Your task to perform on an android device: Turn off the flashlight Image 0: 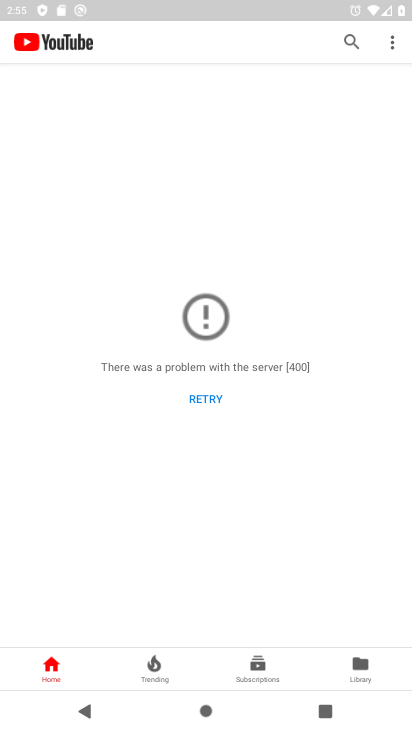
Step 0: press home button
Your task to perform on an android device: Turn off the flashlight Image 1: 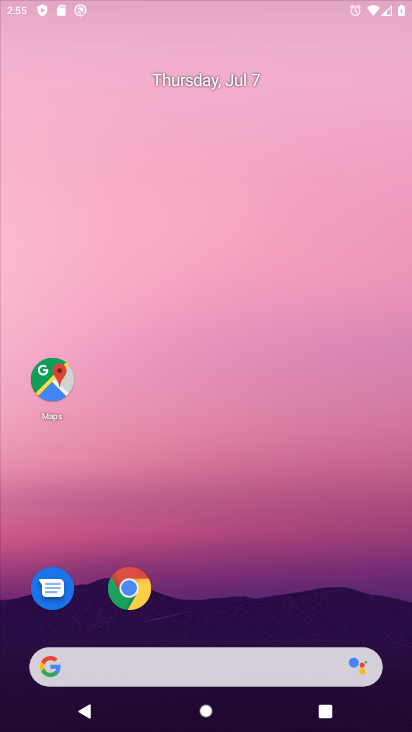
Step 1: drag from (181, 264) to (189, 485)
Your task to perform on an android device: Turn off the flashlight Image 2: 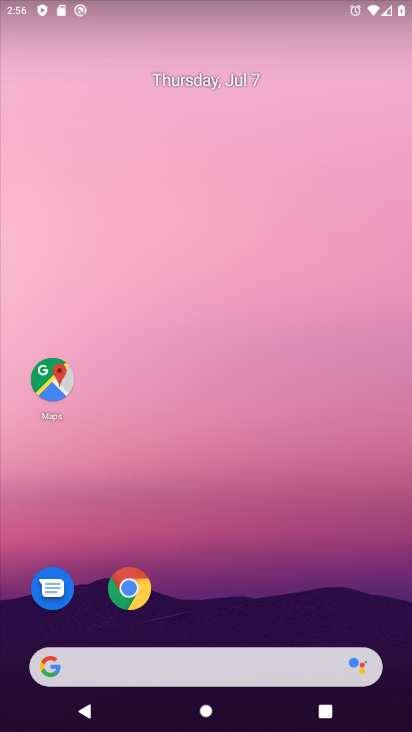
Step 2: drag from (238, 44) to (312, 516)
Your task to perform on an android device: Turn off the flashlight Image 3: 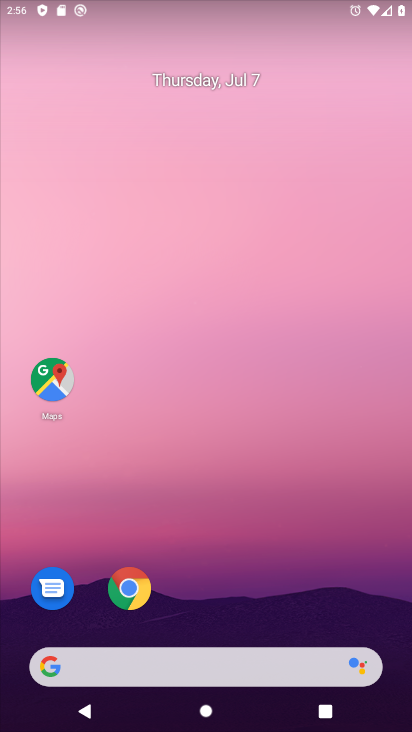
Step 3: drag from (231, 3) to (189, 682)
Your task to perform on an android device: Turn off the flashlight Image 4: 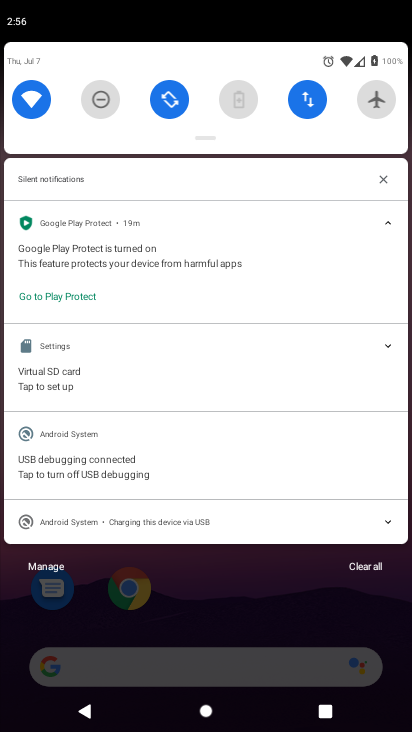
Step 4: drag from (174, 117) to (276, 580)
Your task to perform on an android device: Turn off the flashlight Image 5: 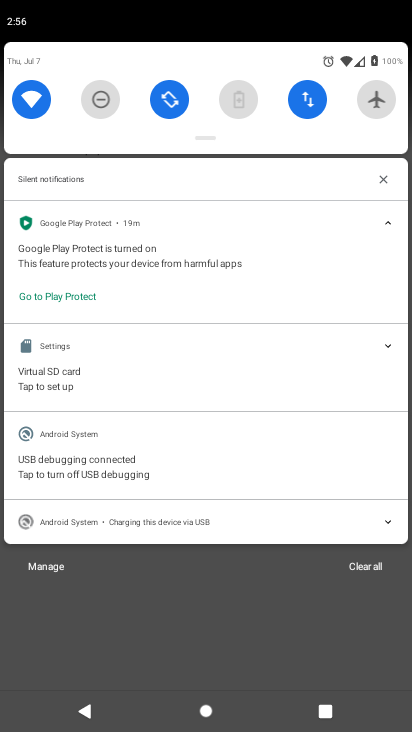
Step 5: drag from (291, 96) to (354, 526)
Your task to perform on an android device: Turn off the flashlight Image 6: 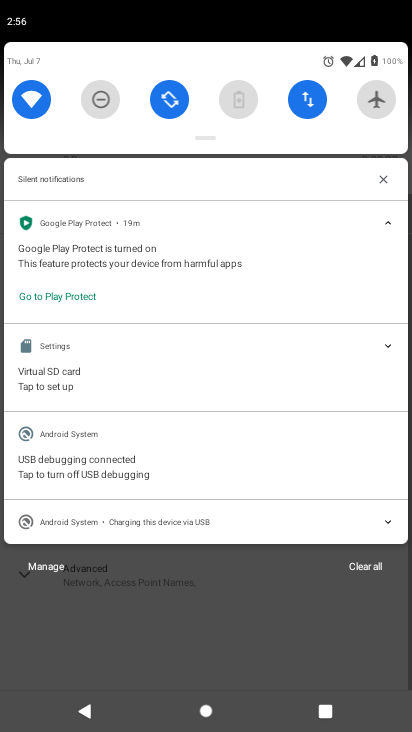
Step 6: drag from (215, 86) to (284, 608)
Your task to perform on an android device: Turn off the flashlight Image 7: 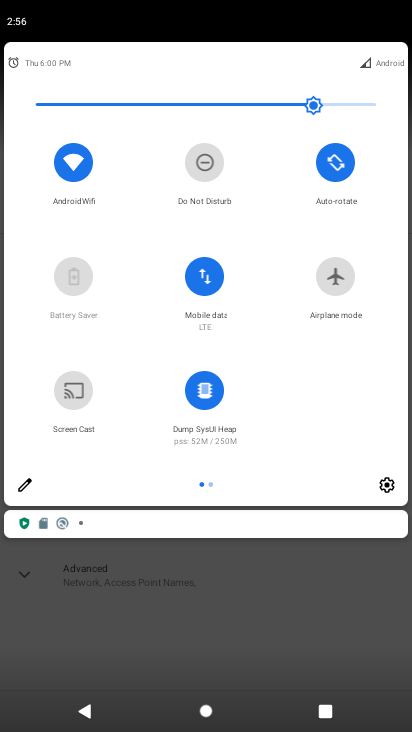
Step 7: drag from (330, 342) to (17, 424)
Your task to perform on an android device: Turn off the flashlight Image 8: 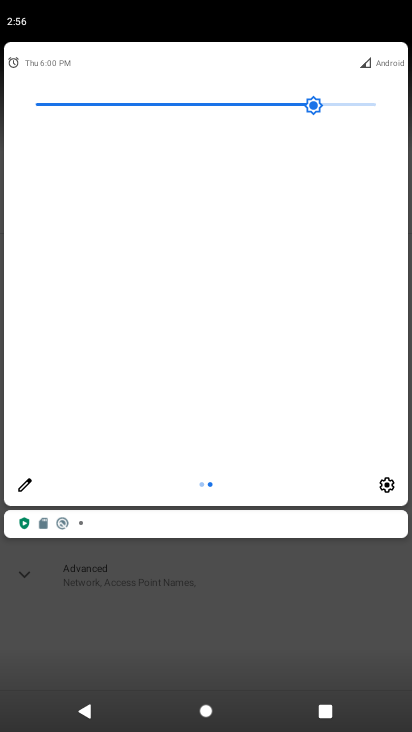
Step 8: click (26, 485)
Your task to perform on an android device: Turn off the flashlight Image 9: 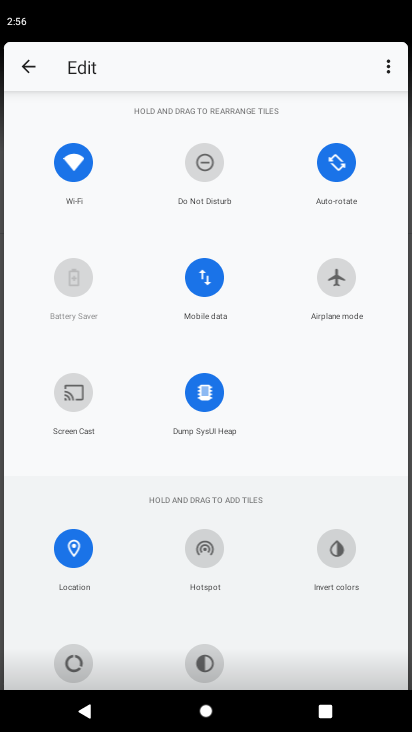
Step 9: task complete